Your task to perform on an android device: change notification settings in the gmail app Image 0: 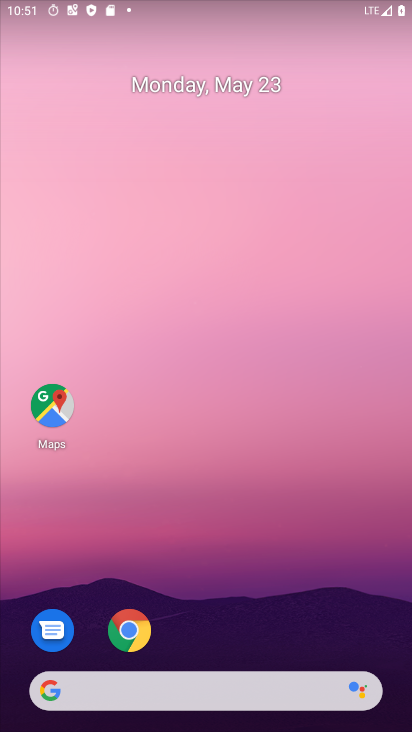
Step 0: drag from (244, 651) to (304, 26)
Your task to perform on an android device: change notification settings in the gmail app Image 1: 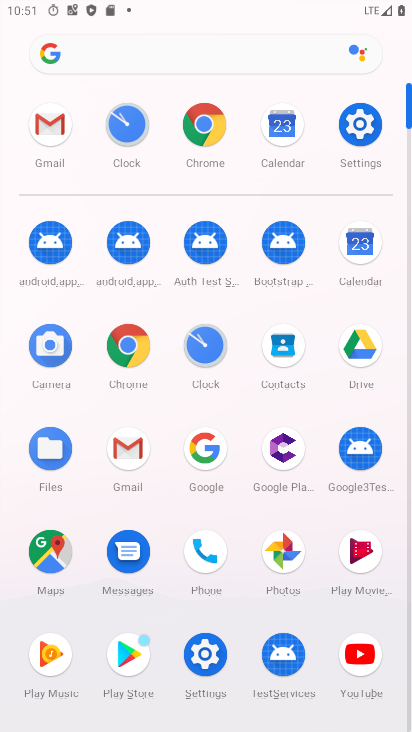
Step 1: click (54, 129)
Your task to perform on an android device: change notification settings in the gmail app Image 2: 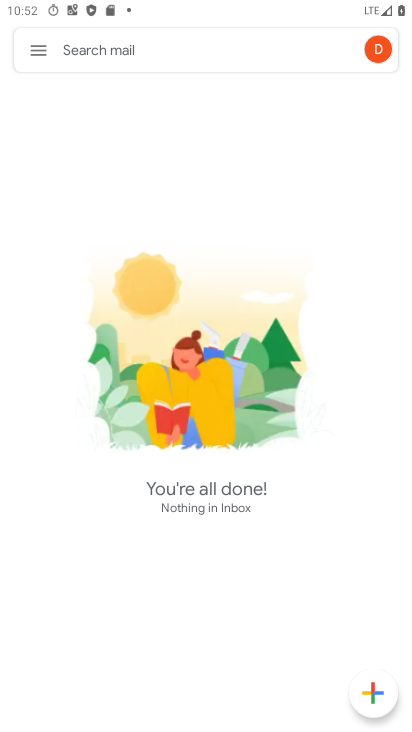
Step 2: click (33, 52)
Your task to perform on an android device: change notification settings in the gmail app Image 3: 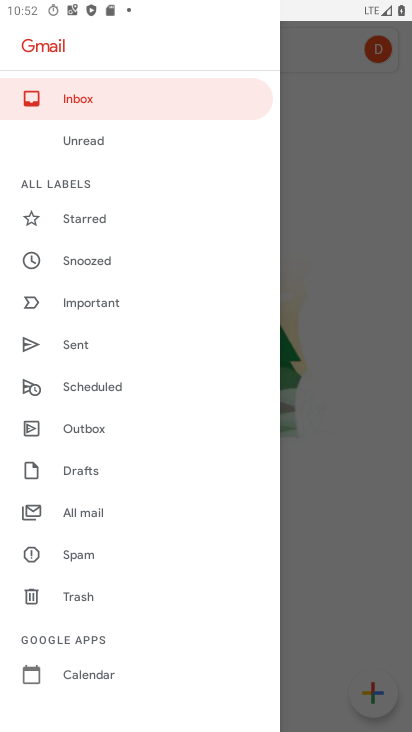
Step 3: drag from (147, 578) to (171, 415)
Your task to perform on an android device: change notification settings in the gmail app Image 4: 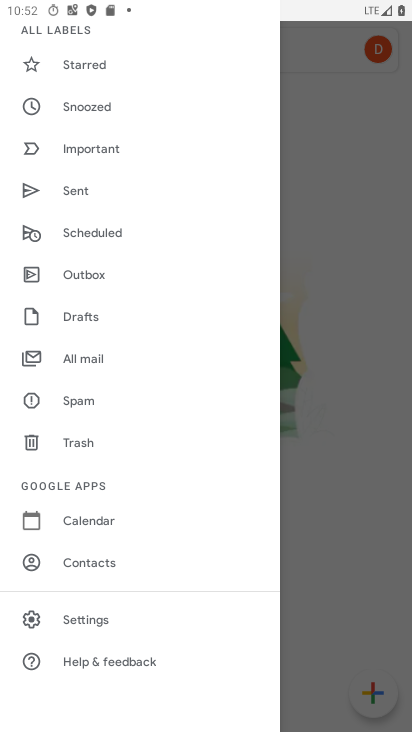
Step 4: click (75, 614)
Your task to perform on an android device: change notification settings in the gmail app Image 5: 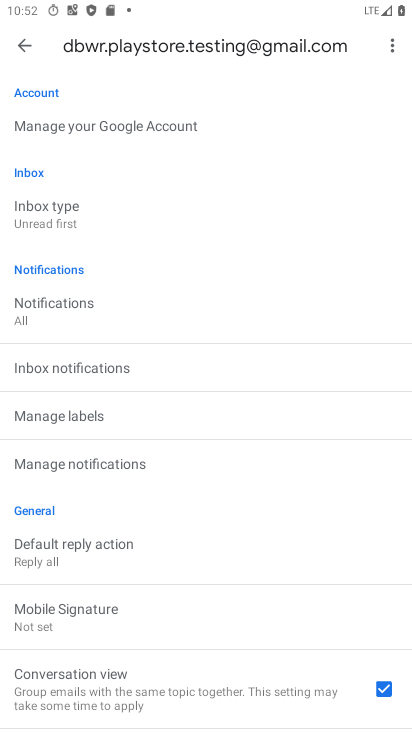
Step 5: click (27, 51)
Your task to perform on an android device: change notification settings in the gmail app Image 6: 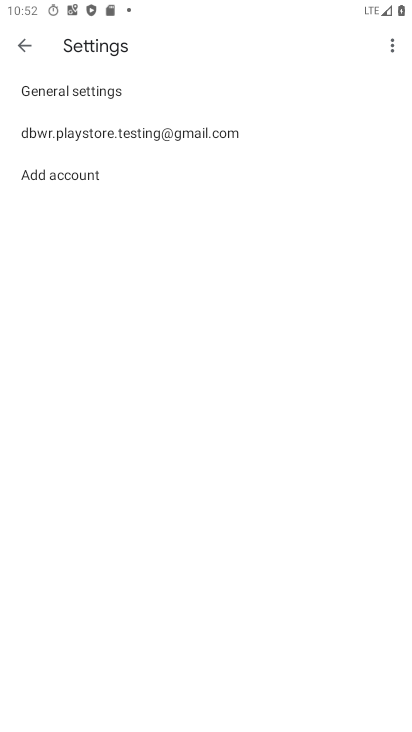
Step 6: click (40, 88)
Your task to perform on an android device: change notification settings in the gmail app Image 7: 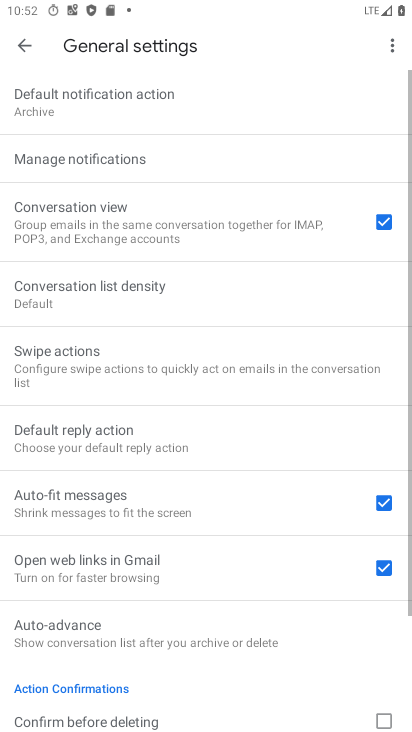
Step 7: click (45, 160)
Your task to perform on an android device: change notification settings in the gmail app Image 8: 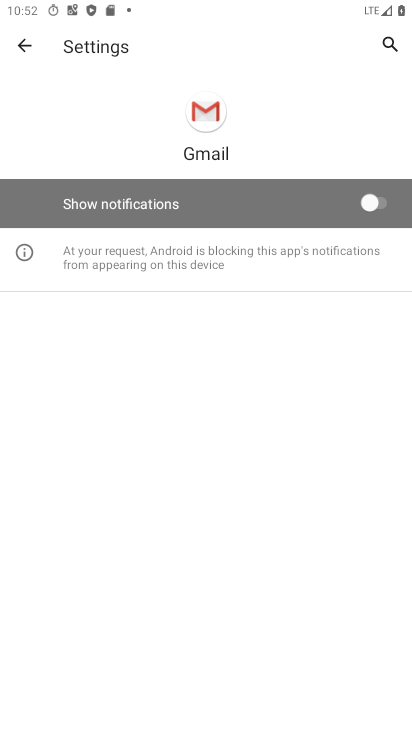
Step 8: click (370, 196)
Your task to perform on an android device: change notification settings in the gmail app Image 9: 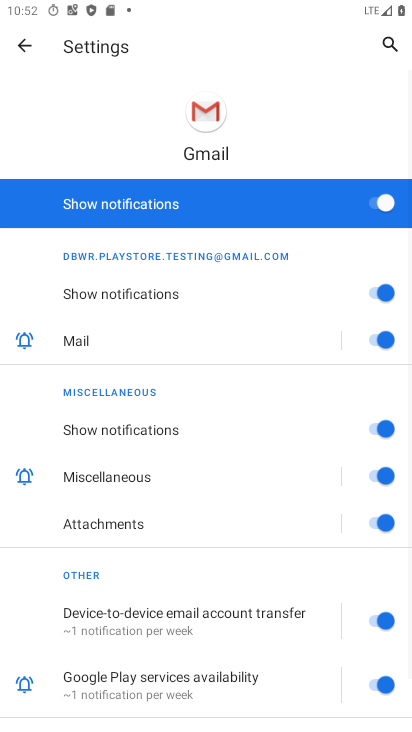
Step 9: task complete